Your task to perform on an android device: Open ESPN.com Image 0: 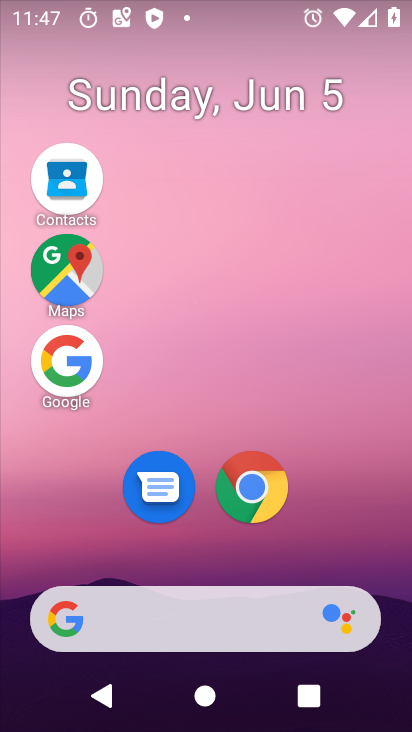
Step 0: drag from (263, 639) to (236, 60)
Your task to perform on an android device: Open ESPN.com Image 1: 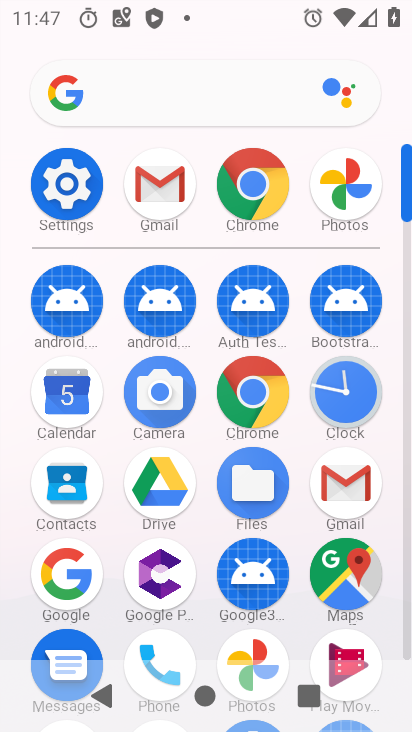
Step 1: click (249, 178)
Your task to perform on an android device: Open ESPN.com Image 2: 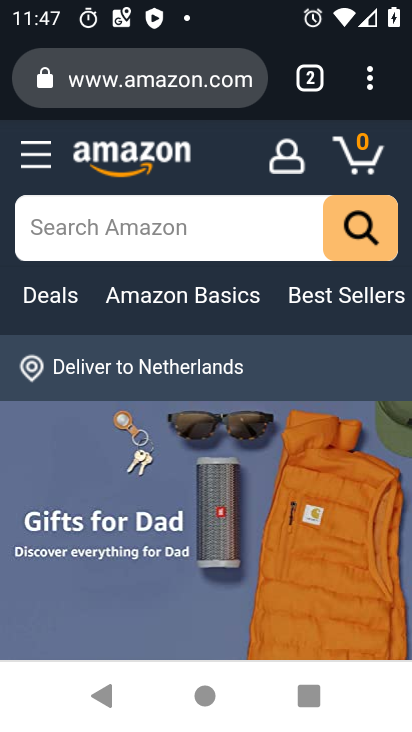
Step 2: click (214, 79)
Your task to perform on an android device: Open ESPN.com Image 3: 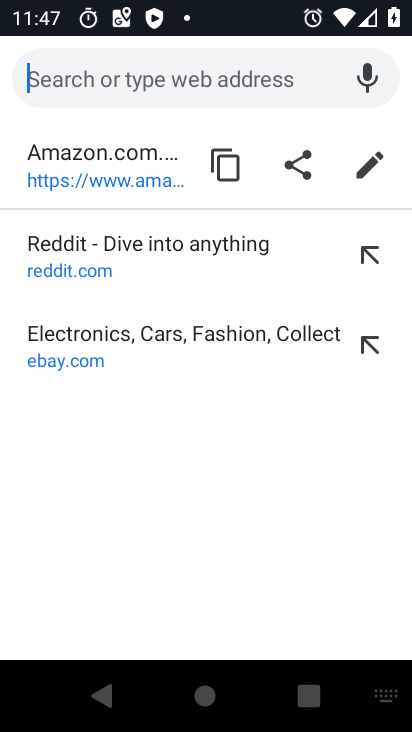
Step 3: type "espn"
Your task to perform on an android device: Open ESPN.com Image 4: 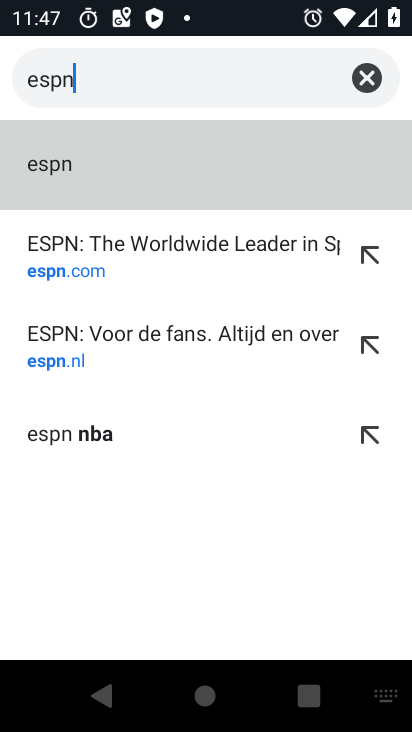
Step 4: click (302, 259)
Your task to perform on an android device: Open ESPN.com Image 5: 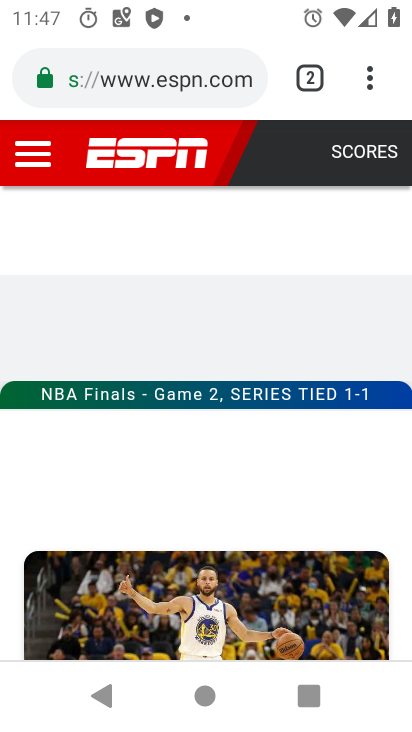
Step 5: task complete